Your task to perform on an android device: turn vacation reply on in the gmail app Image 0: 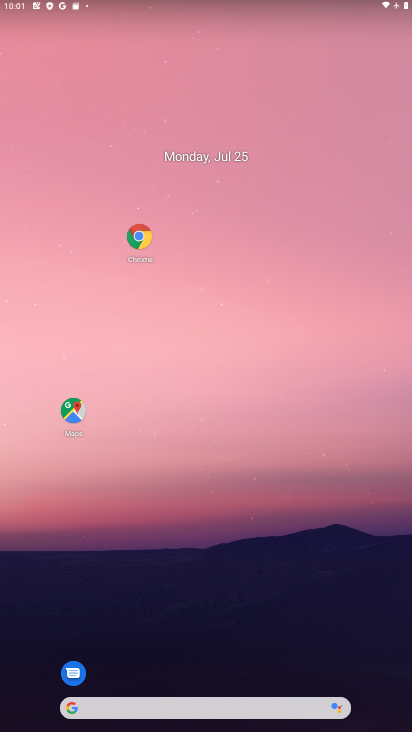
Step 0: drag from (327, 660) to (252, 21)
Your task to perform on an android device: turn vacation reply on in the gmail app Image 1: 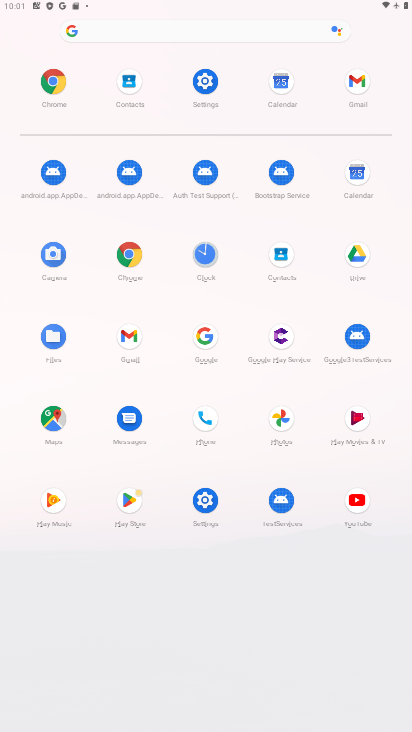
Step 1: click (347, 89)
Your task to perform on an android device: turn vacation reply on in the gmail app Image 2: 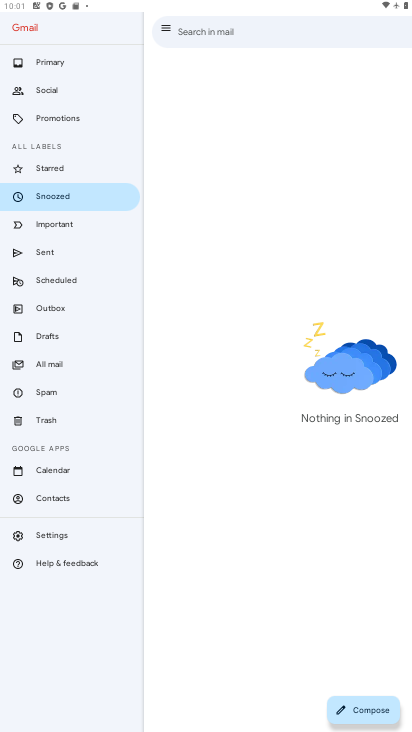
Step 2: click (88, 61)
Your task to perform on an android device: turn vacation reply on in the gmail app Image 3: 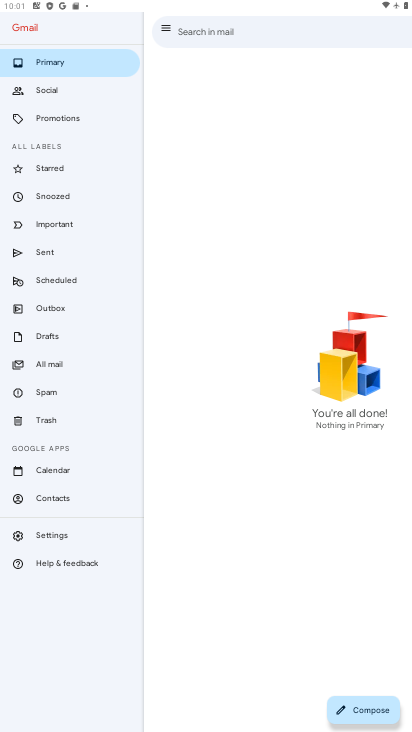
Step 3: task complete